Your task to perform on an android device: Open Wikipedia Image 0: 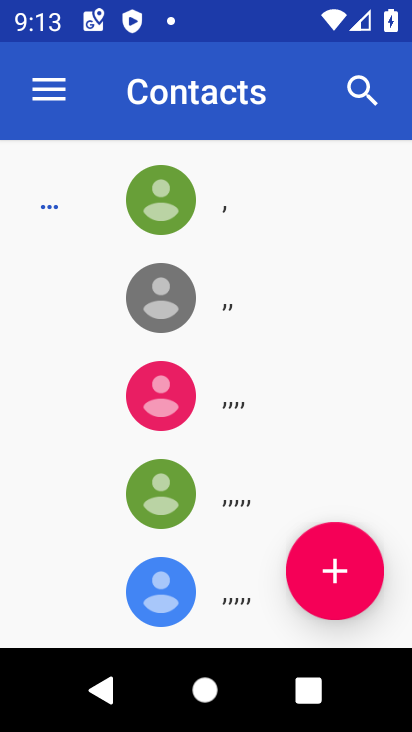
Step 0: press home button
Your task to perform on an android device: Open Wikipedia Image 1: 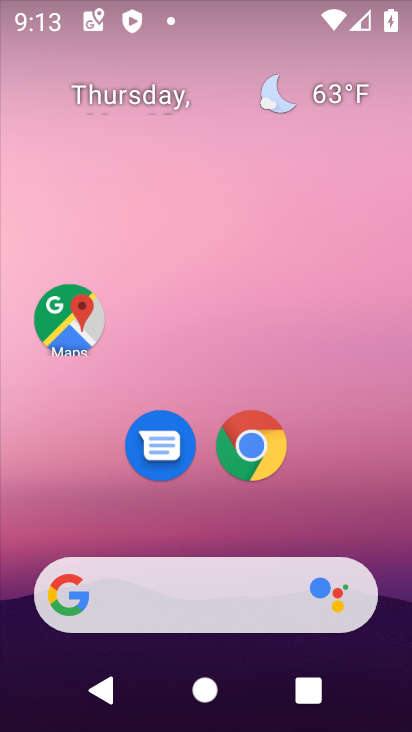
Step 1: click (250, 463)
Your task to perform on an android device: Open Wikipedia Image 2: 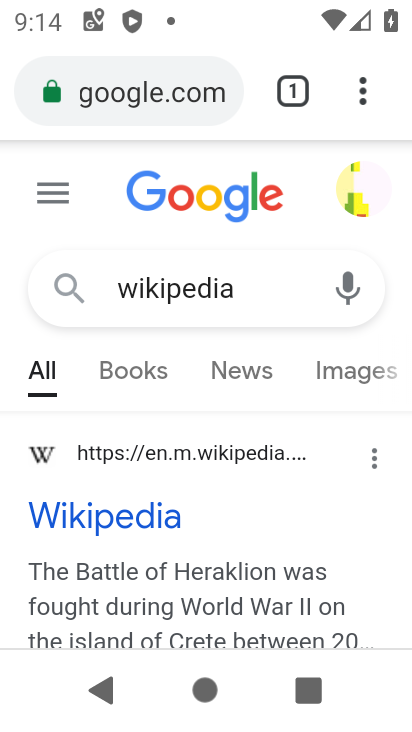
Step 2: click (125, 524)
Your task to perform on an android device: Open Wikipedia Image 3: 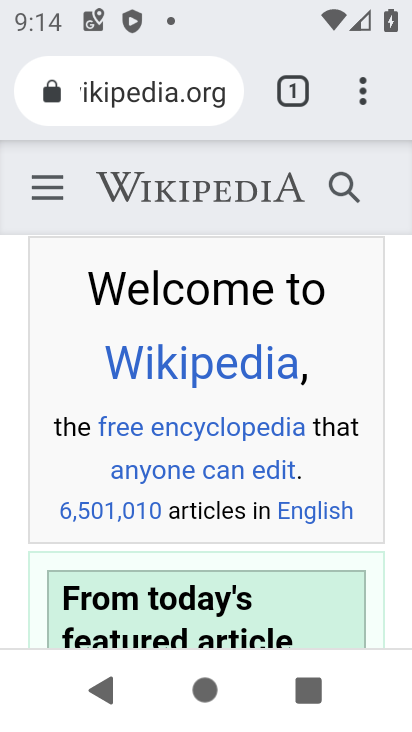
Step 3: task complete